Your task to perform on an android device: Search for seafood restaurants on Google Maps Image 0: 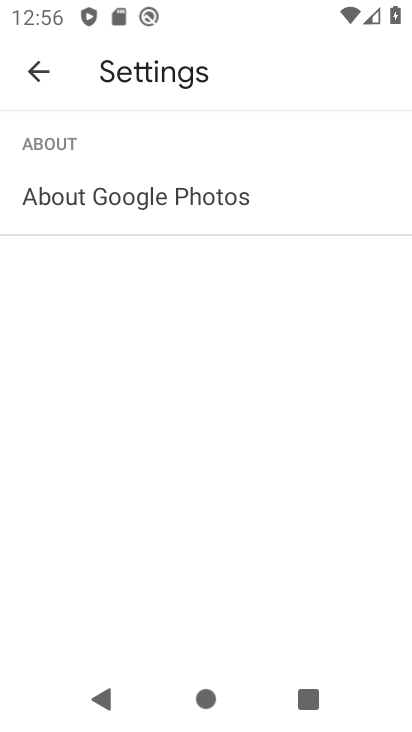
Step 0: drag from (364, 502) to (411, 211)
Your task to perform on an android device: Search for seafood restaurants on Google Maps Image 1: 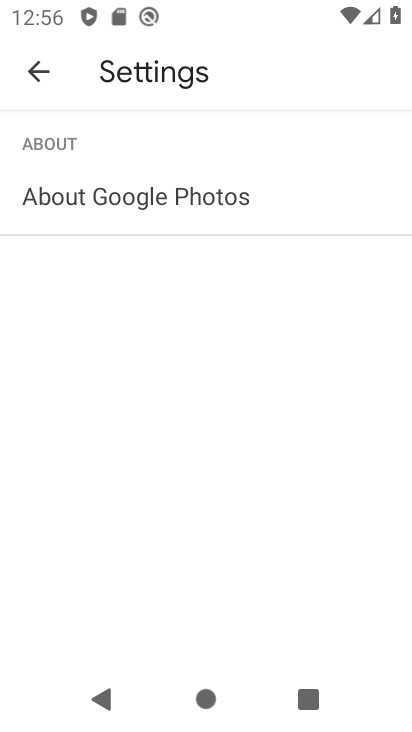
Step 1: press home button
Your task to perform on an android device: Search for seafood restaurants on Google Maps Image 2: 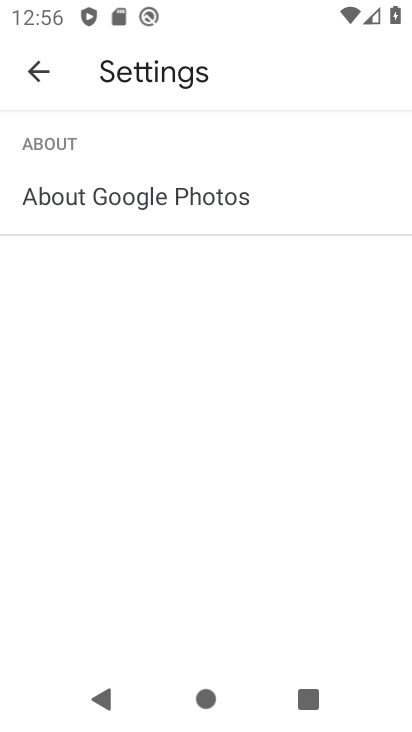
Step 2: drag from (411, 211) to (395, 552)
Your task to perform on an android device: Search for seafood restaurants on Google Maps Image 3: 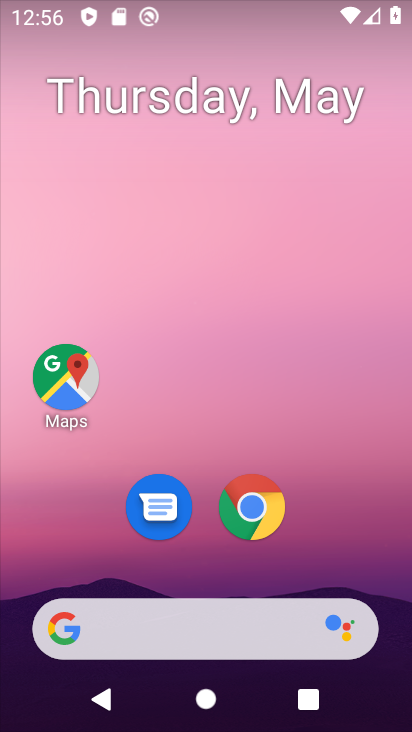
Step 3: drag from (270, 643) to (309, 119)
Your task to perform on an android device: Search for seafood restaurants on Google Maps Image 4: 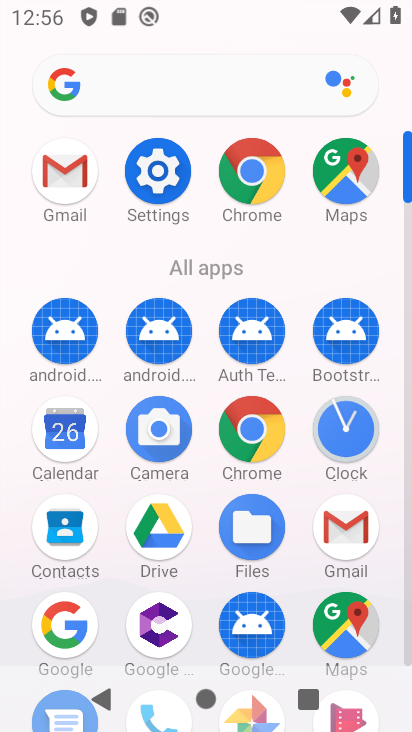
Step 4: click (347, 620)
Your task to perform on an android device: Search for seafood restaurants on Google Maps Image 5: 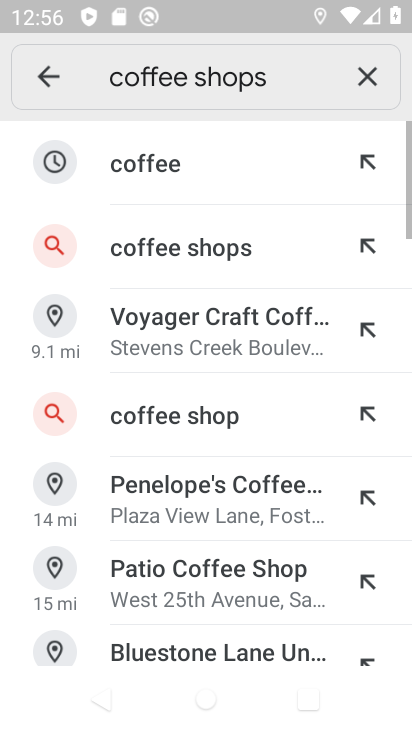
Step 5: click (366, 82)
Your task to perform on an android device: Search for seafood restaurants on Google Maps Image 6: 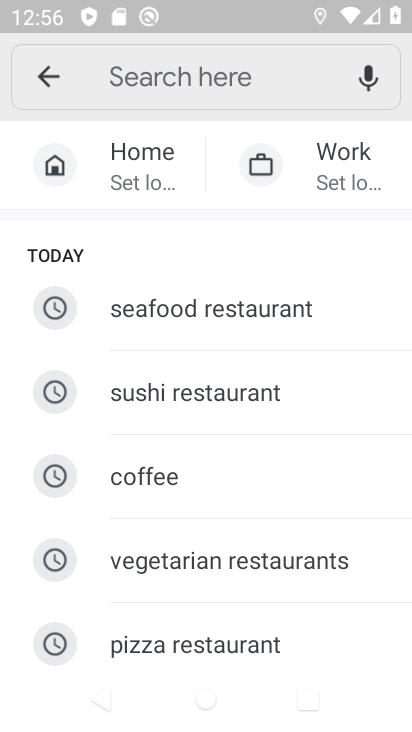
Step 6: click (236, 311)
Your task to perform on an android device: Search for seafood restaurants on Google Maps Image 7: 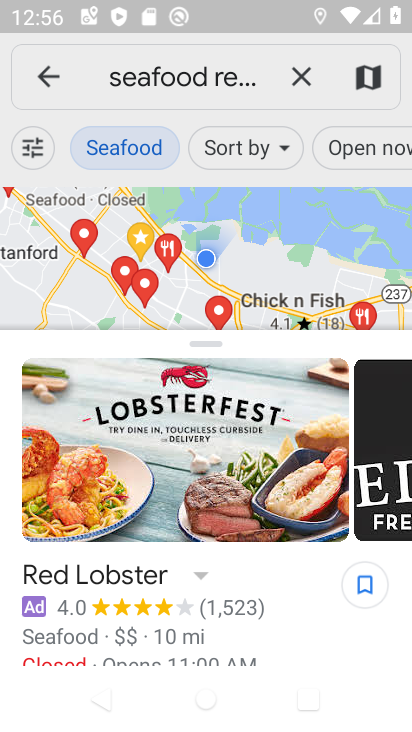
Step 7: task complete